Your task to perform on an android device: Show me recent news Image 0: 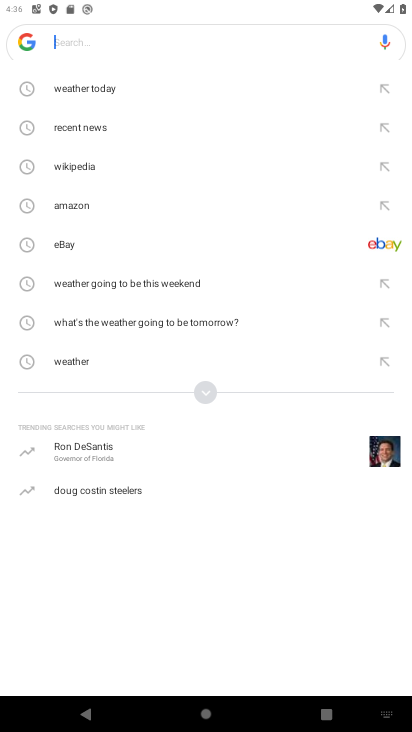
Step 0: press back button
Your task to perform on an android device: Show me recent news Image 1: 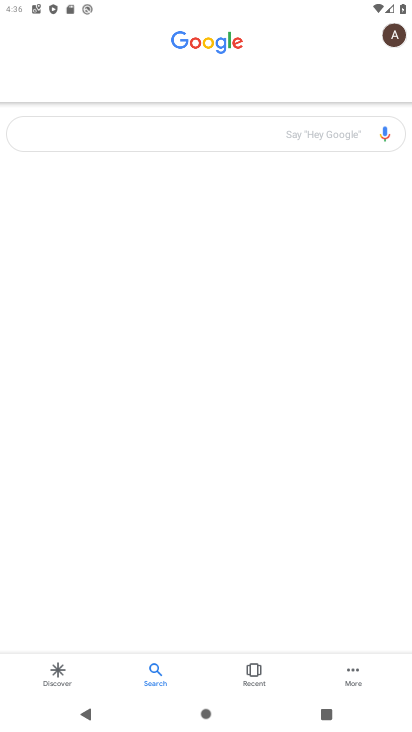
Step 1: click (241, 133)
Your task to perform on an android device: Show me recent news Image 2: 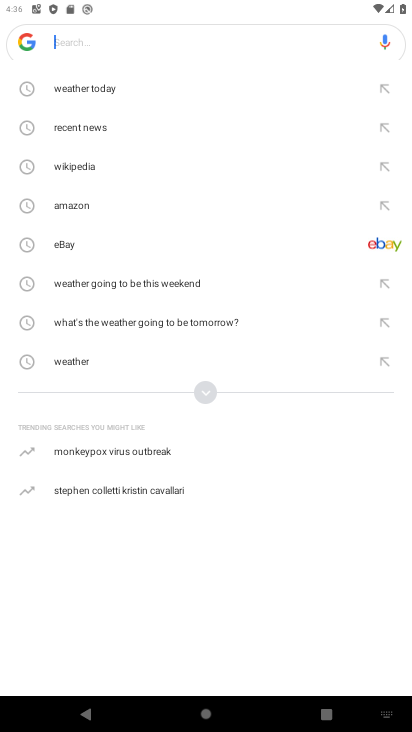
Step 2: click (60, 125)
Your task to perform on an android device: Show me recent news Image 3: 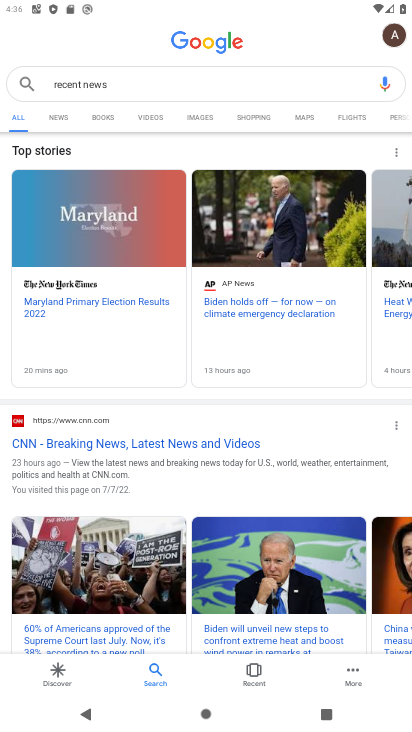
Step 3: click (60, 125)
Your task to perform on an android device: Show me recent news Image 4: 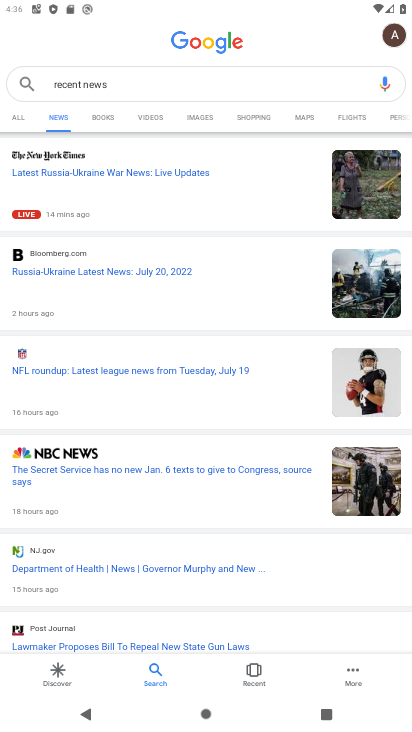
Step 4: task complete